Your task to perform on an android device: Open battery settings Image 0: 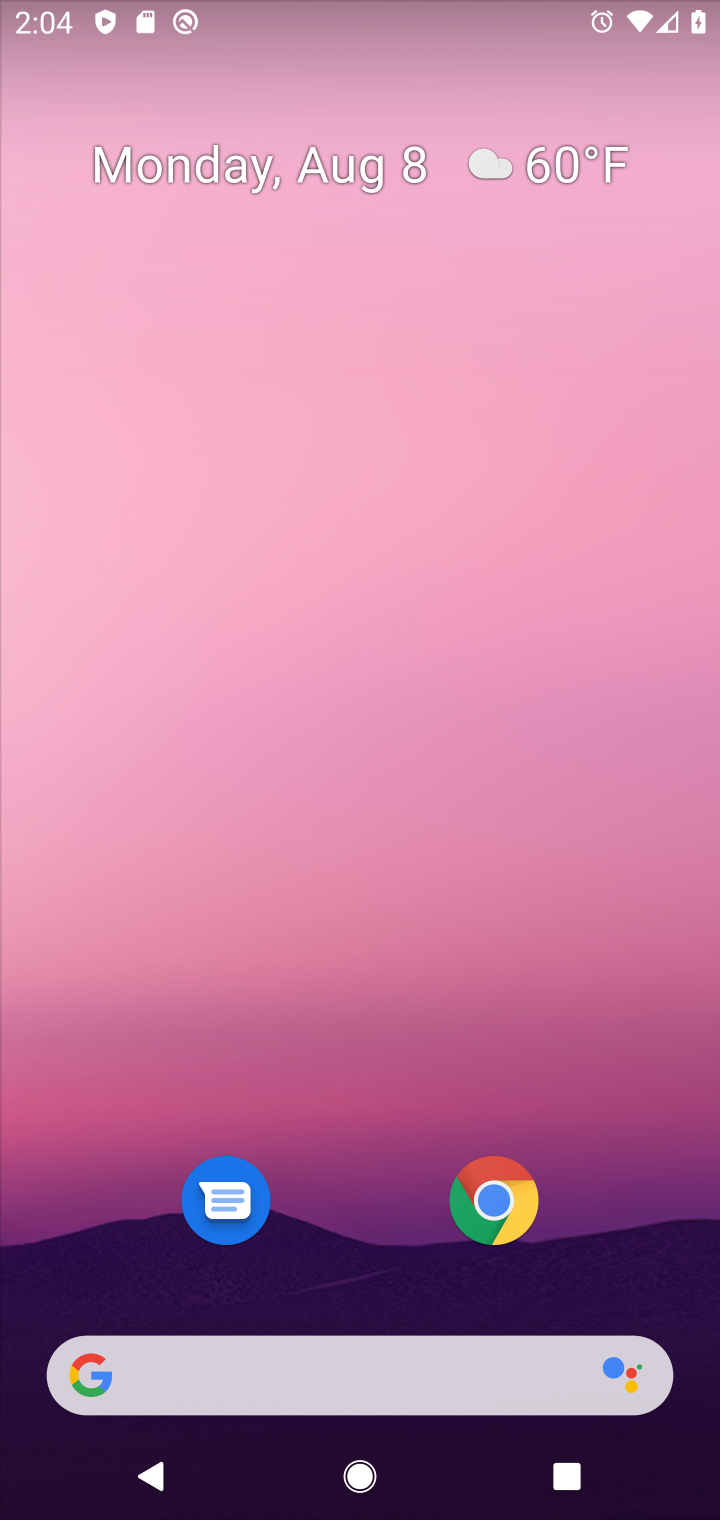
Step 0: drag from (370, 1282) to (467, 224)
Your task to perform on an android device: Open battery settings Image 1: 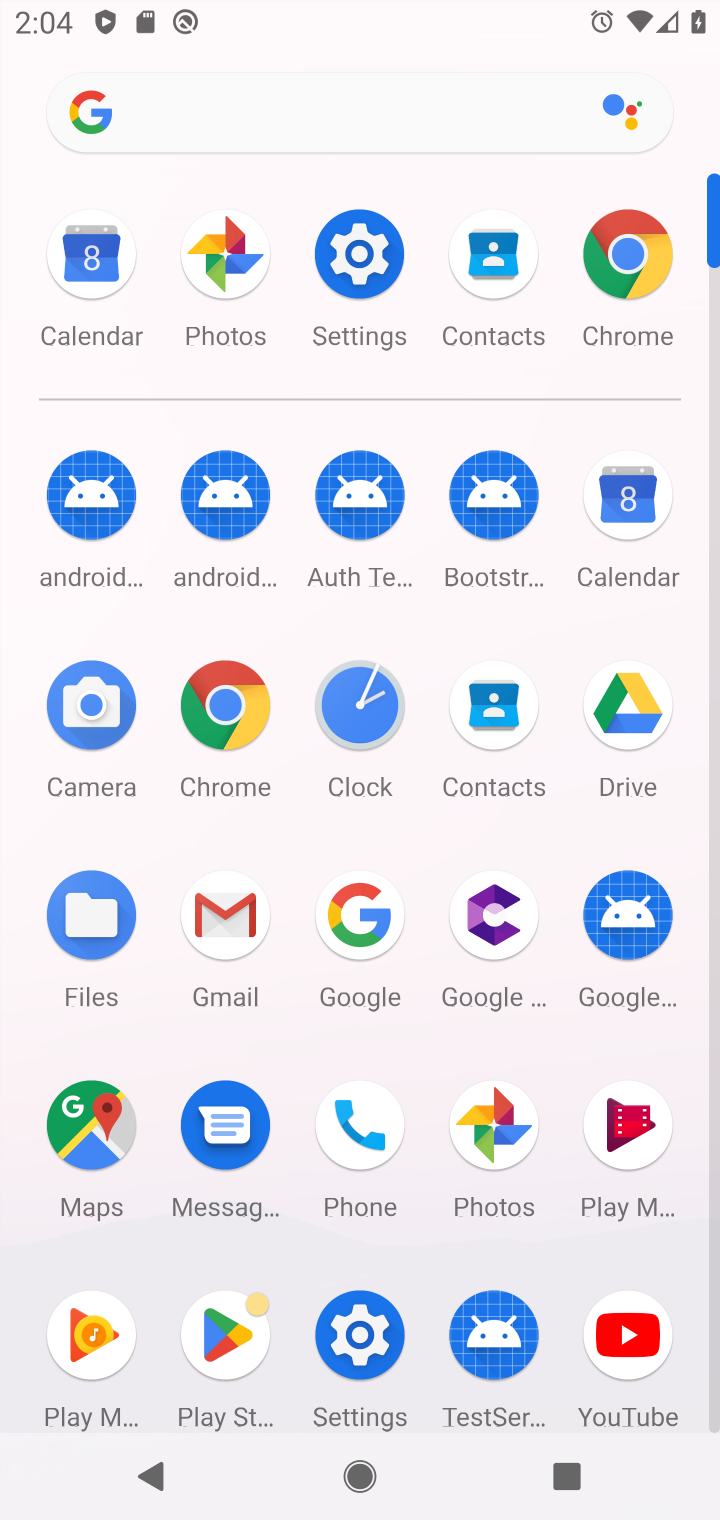
Step 1: click (355, 249)
Your task to perform on an android device: Open battery settings Image 2: 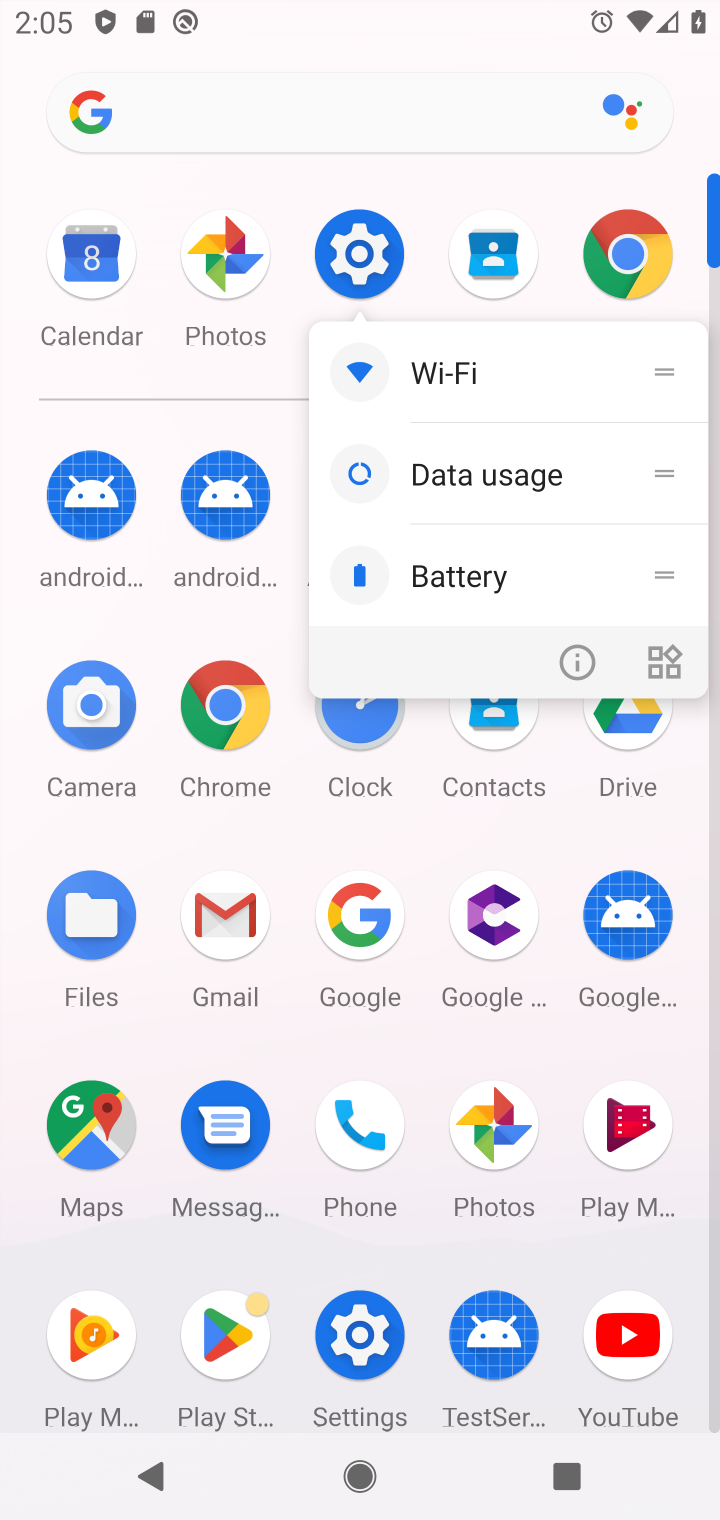
Step 2: click (359, 235)
Your task to perform on an android device: Open battery settings Image 3: 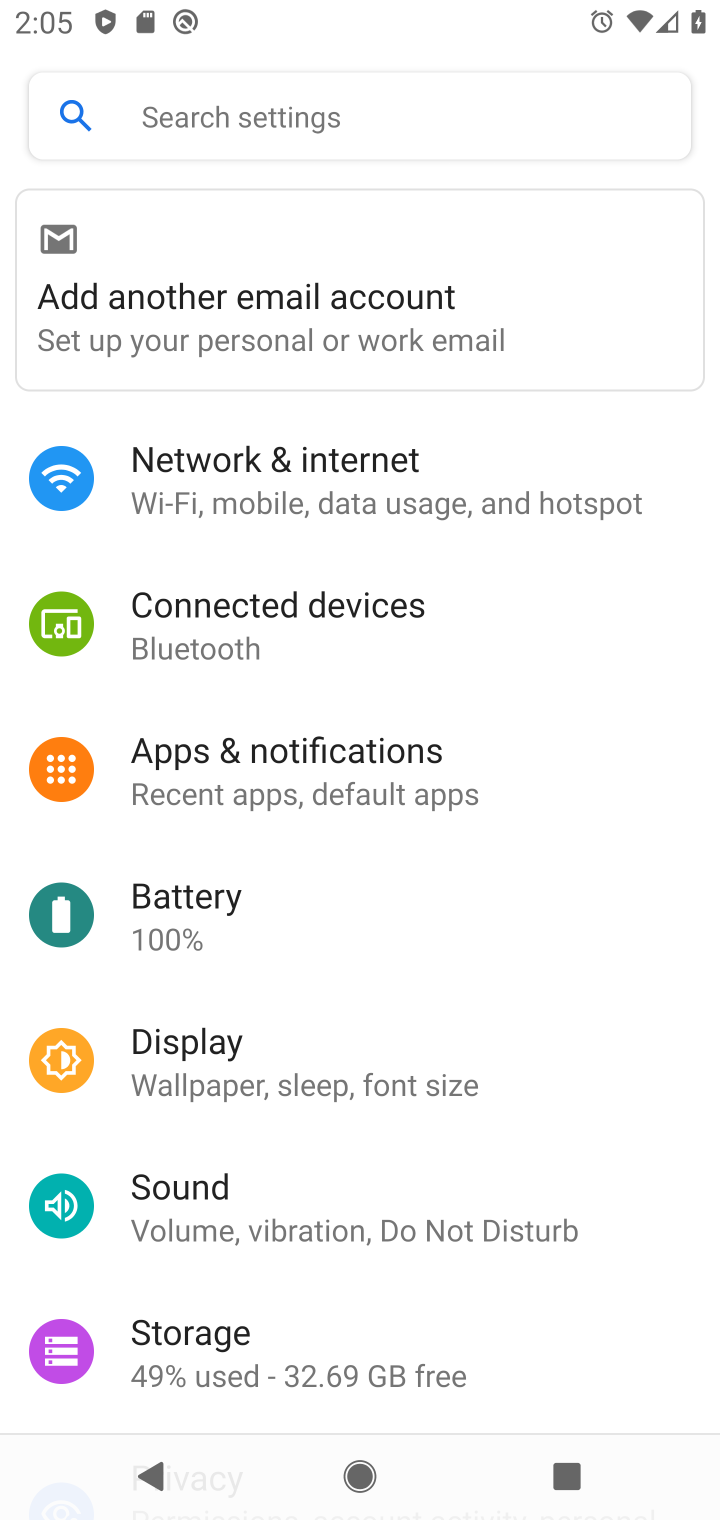
Step 3: click (283, 901)
Your task to perform on an android device: Open battery settings Image 4: 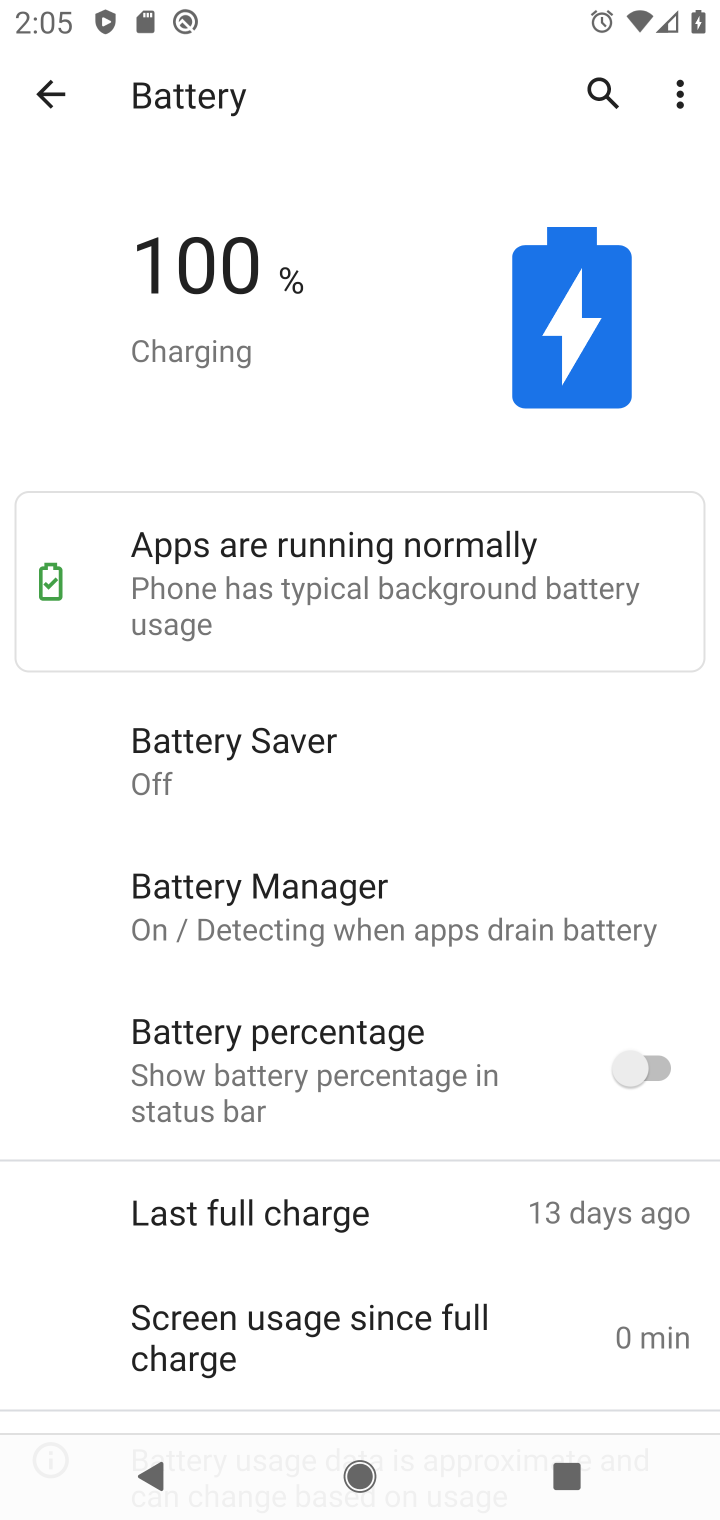
Step 4: task complete